Your task to perform on an android device: see creations saved in the google photos Image 0: 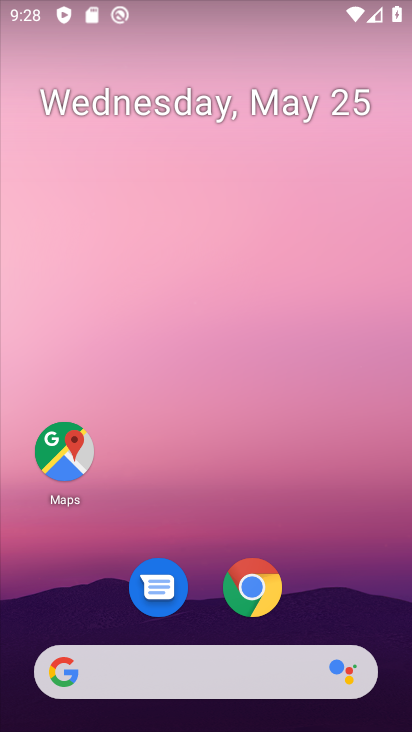
Step 0: drag from (219, 620) to (197, 275)
Your task to perform on an android device: see creations saved in the google photos Image 1: 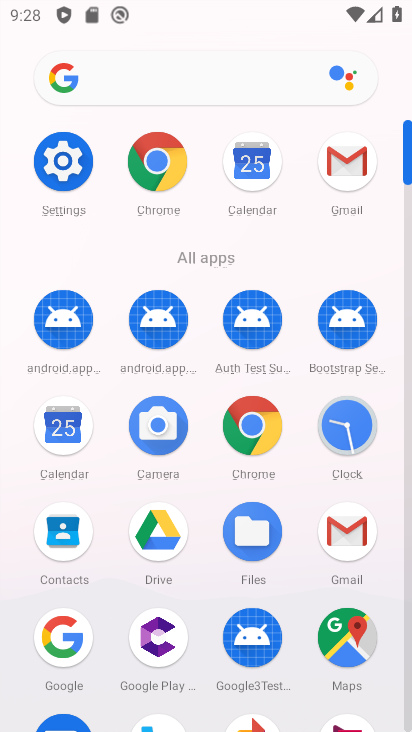
Step 1: drag from (223, 568) to (250, 269)
Your task to perform on an android device: see creations saved in the google photos Image 2: 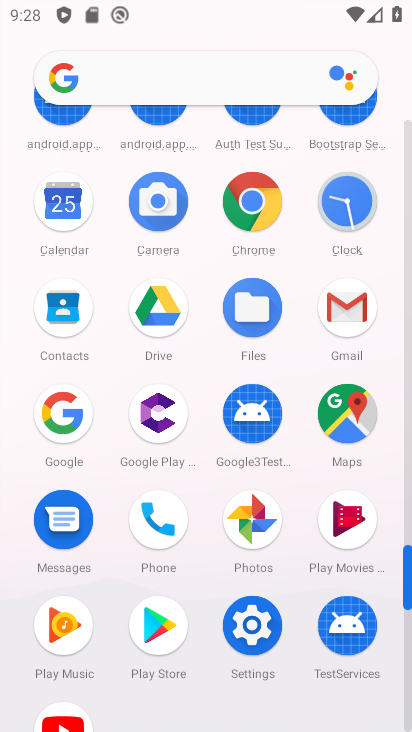
Step 2: click (245, 527)
Your task to perform on an android device: see creations saved in the google photos Image 3: 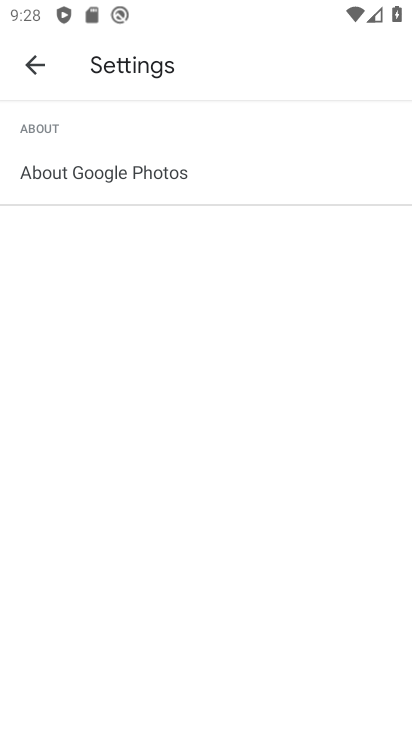
Step 3: click (35, 63)
Your task to perform on an android device: see creations saved in the google photos Image 4: 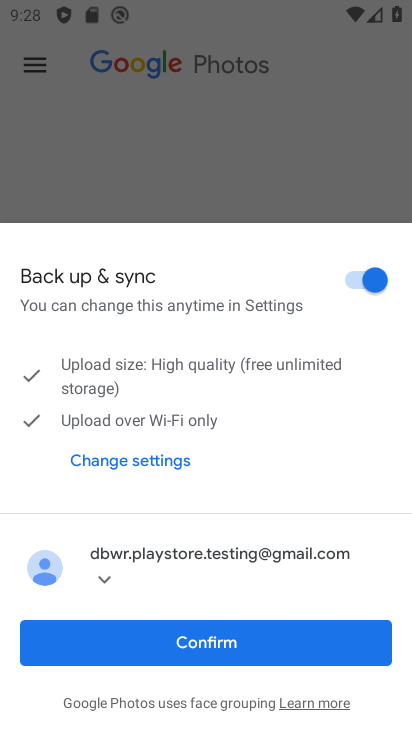
Step 4: click (231, 633)
Your task to perform on an android device: see creations saved in the google photos Image 5: 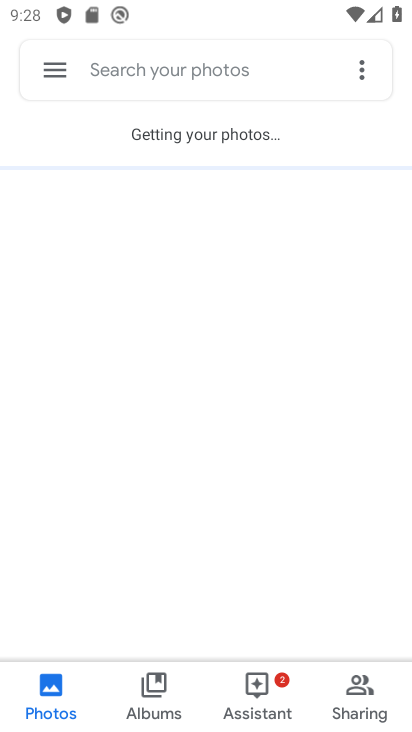
Step 5: click (245, 79)
Your task to perform on an android device: see creations saved in the google photos Image 6: 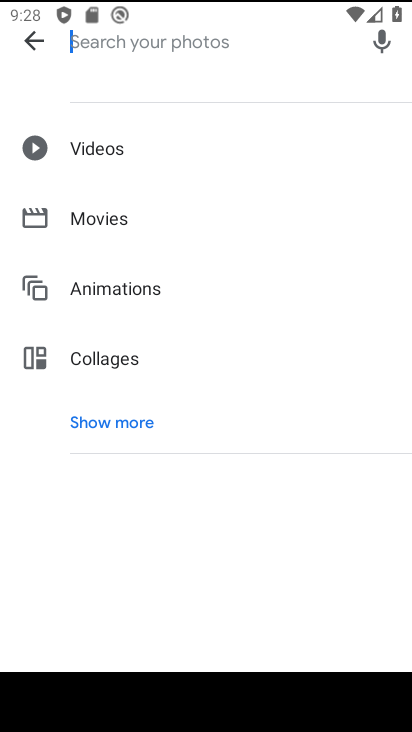
Step 6: type "creations"
Your task to perform on an android device: see creations saved in the google photos Image 7: 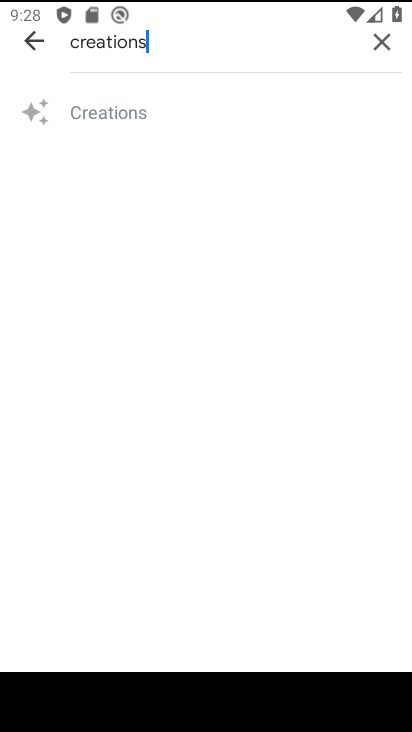
Step 7: click (167, 132)
Your task to perform on an android device: see creations saved in the google photos Image 8: 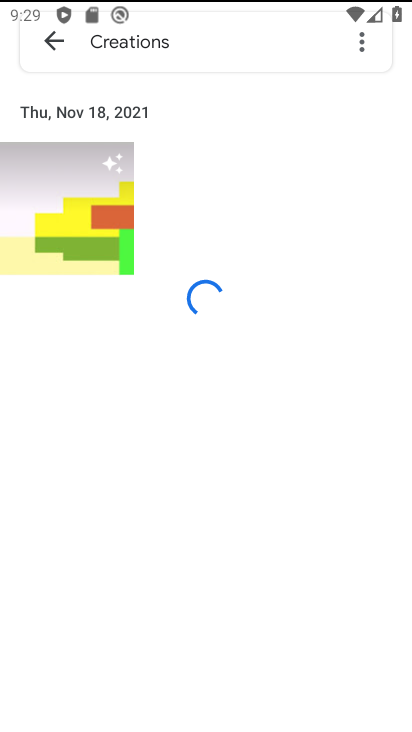
Step 8: task complete